Your task to perform on an android device: Open calendar and show me the first week of next month Image 0: 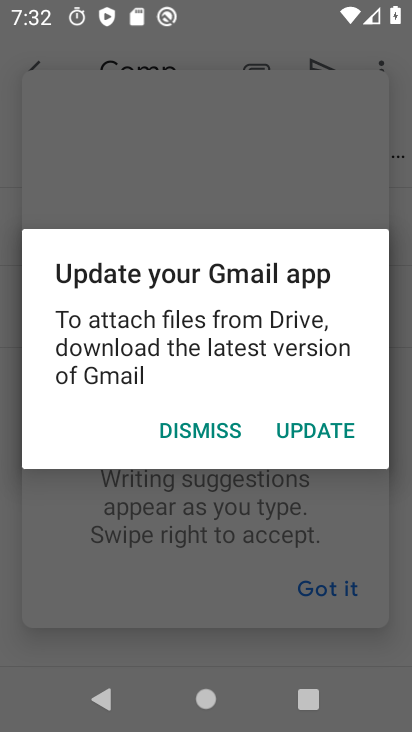
Step 0: press home button
Your task to perform on an android device: Open calendar and show me the first week of next month Image 1: 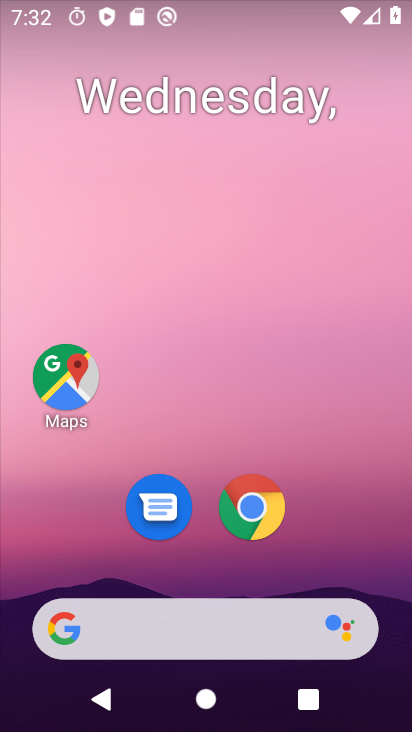
Step 1: drag from (216, 643) to (268, 189)
Your task to perform on an android device: Open calendar and show me the first week of next month Image 2: 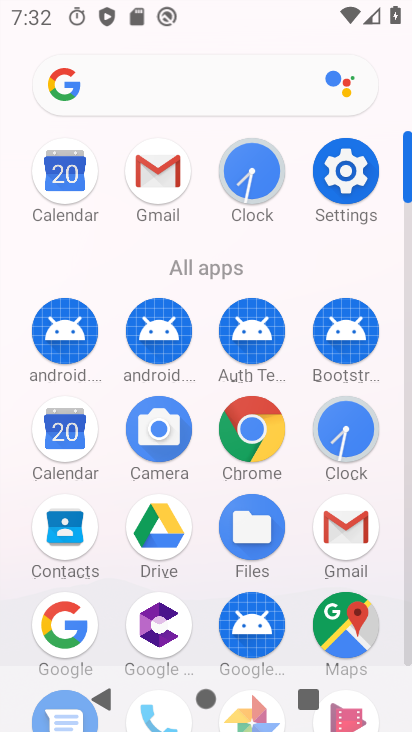
Step 2: click (52, 430)
Your task to perform on an android device: Open calendar and show me the first week of next month Image 3: 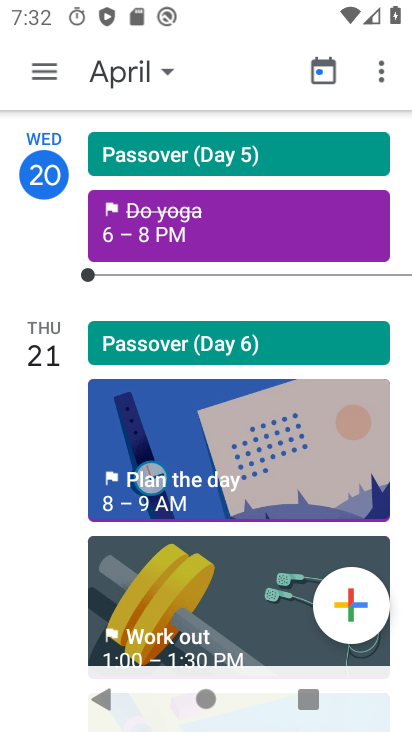
Step 3: click (38, 76)
Your task to perform on an android device: Open calendar and show me the first week of next month Image 4: 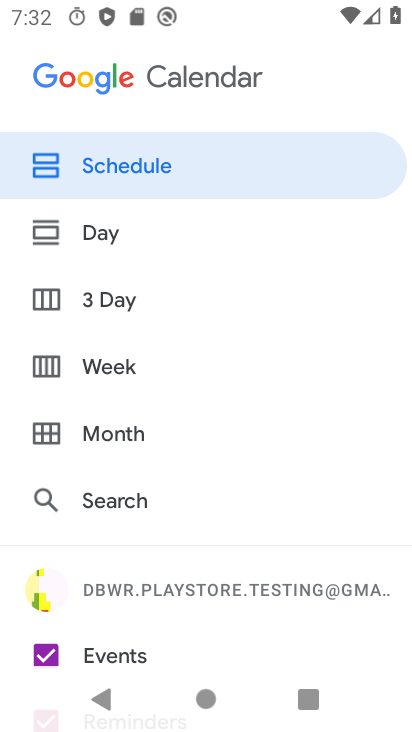
Step 4: click (107, 438)
Your task to perform on an android device: Open calendar and show me the first week of next month Image 5: 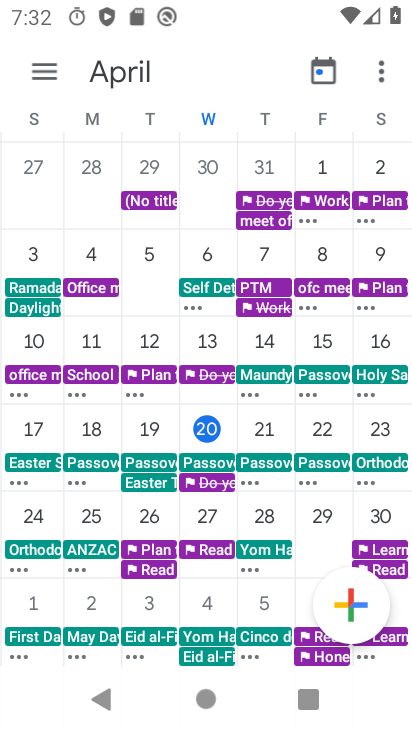
Step 5: drag from (392, 430) to (23, 67)
Your task to perform on an android device: Open calendar and show me the first week of next month Image 6: 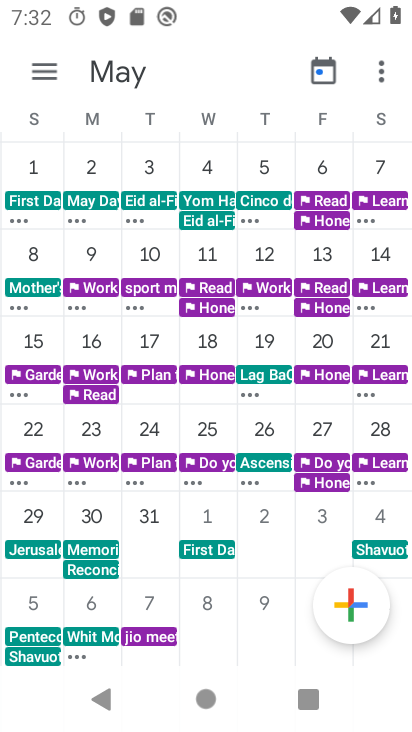
Step 6: click (76, 189)
Your task to perform on an android device: Open calendar and show me the first week of next month Image 7: 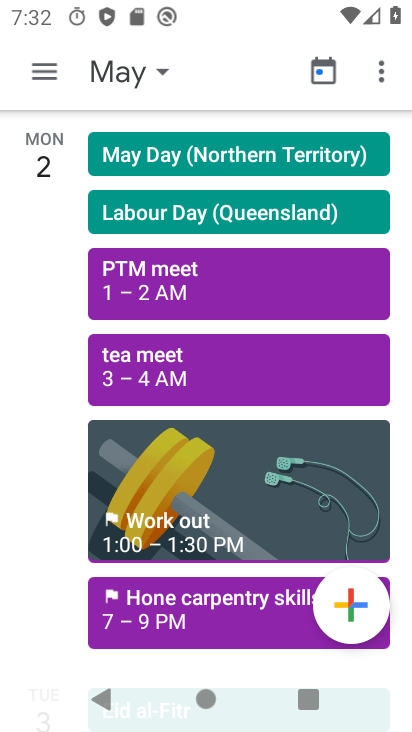
Step 7: task complete